Your task to perform on an android device: manage bookmarks in the chrome app Image 0: 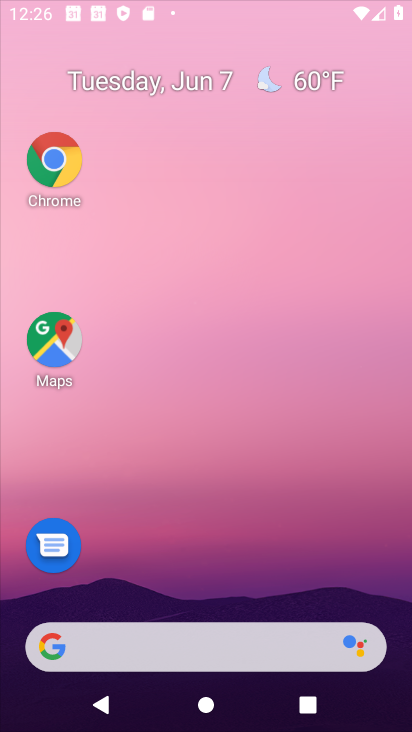
Step 0: click (283, 48)
Your task to perform on an android device: manage bookmarks in the chrome app Image 1: 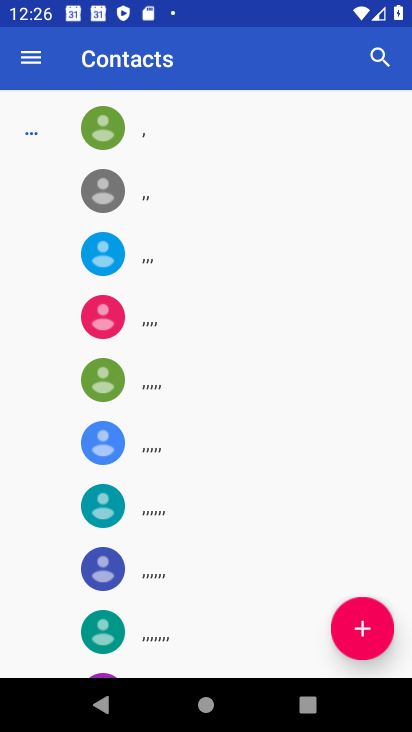
Step 1: click (249, 83)
Your task to perform on an android device: manage bookmarks in the chrome app Image 2: 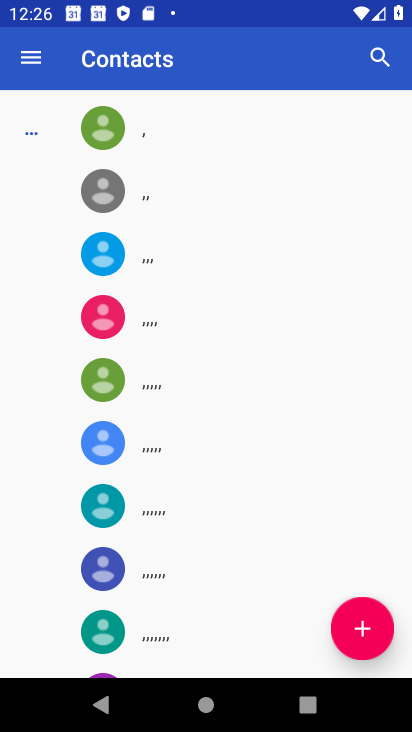
Step 2: press home button
Your task to perform on an android device: manage bookmarks in the chrome app Image 3: 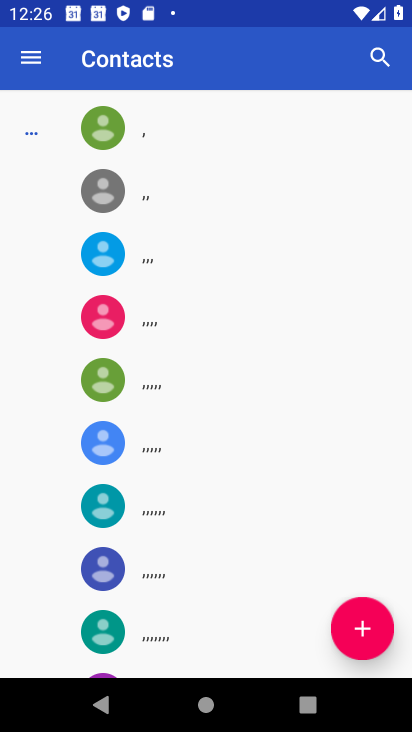
Step 3: press home button
Your task to perform on an android device: manage bookmarks in the chrome app Image 4: 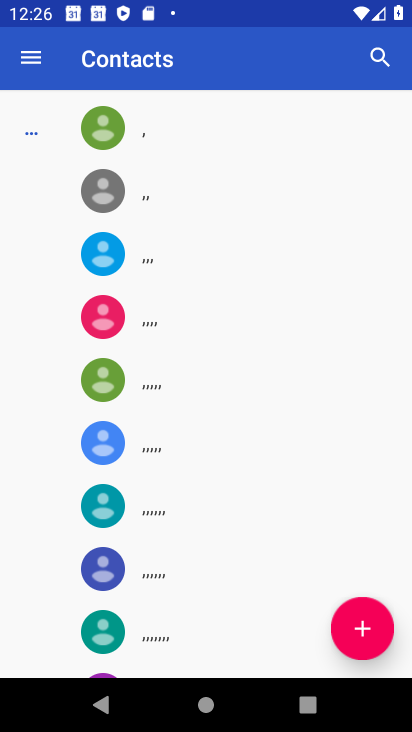
Step 4: drag from (211, 206) to (250, 42)
Your task to perform on an android device: manage bookmarks in the chrome app Image 5: 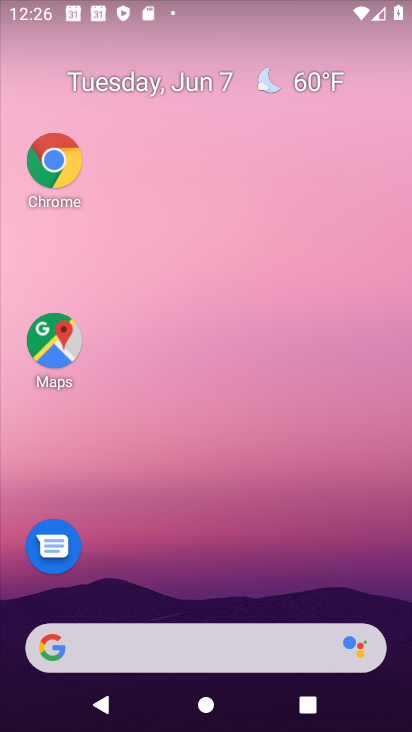
Step 5: drag from (181, 610) to (286, 36)
Your task to perform on an android device: manage bookmarks in the chrome app Image 6: 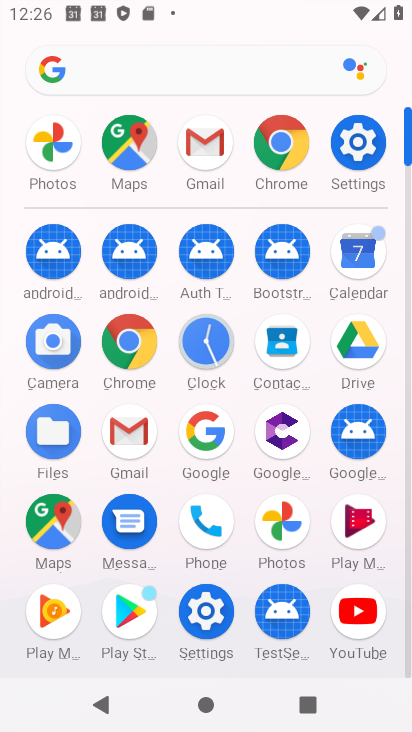
Step 6: click (125, 331)
Your task to perform on an android device: manage bookmarks in the chrome app Image 7: 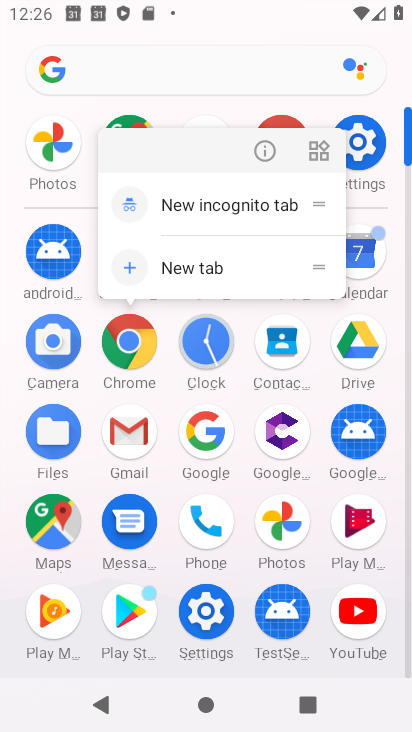
Step 7: click (267, 157)
Your task to perform on an android device: manage bookmarks in the chrome app Image 8: 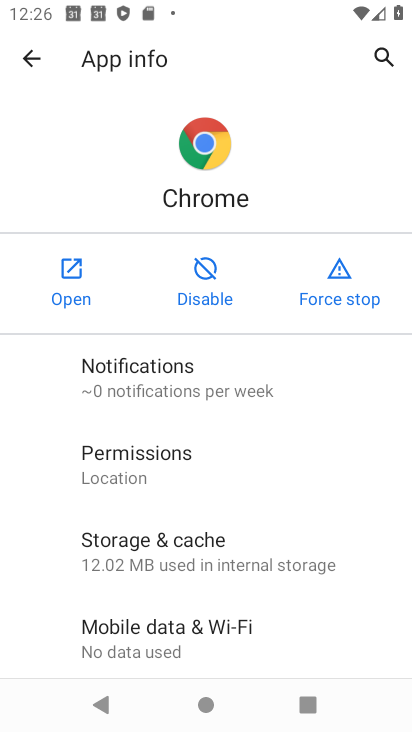
Step 8: click (76, 283)
Your task to perform on an android device: manage bookmarks in the chrome app Image 9: 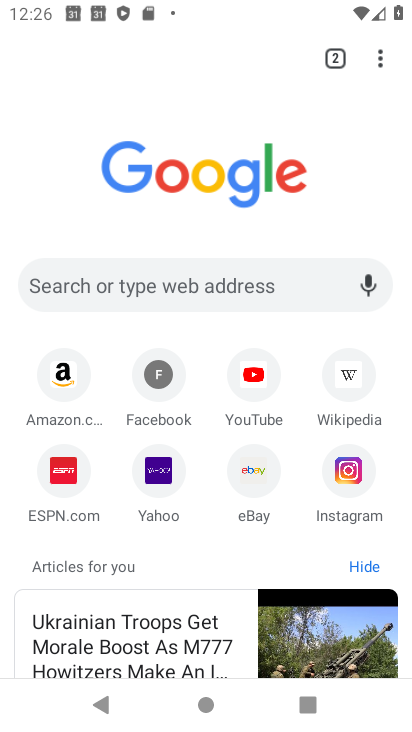
Step 9: drag from (392, 59) to (225, 224)
Your task to perform on an android device: manage bookmarks in the chrome app Image 10: 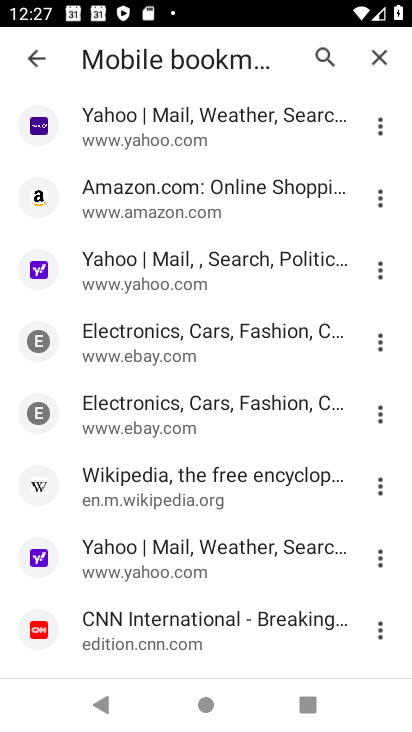
Step 10: drag from (190, 467) to (261, 169)
Your task to perform on an android device: manage bookmarks in the chrome app Image 11: 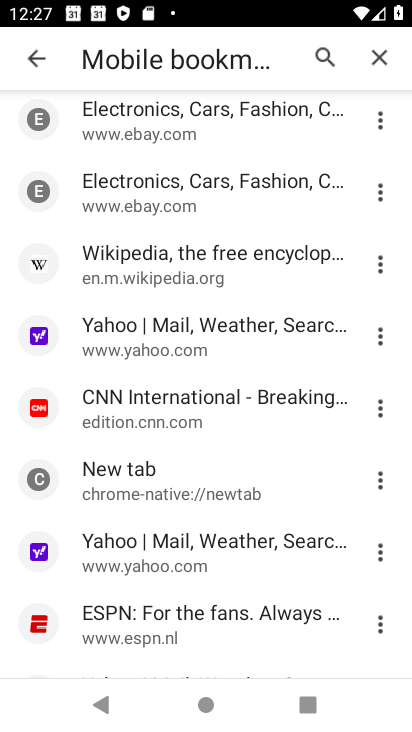
Step 11: drag from (257, 187) to (264, 489)
Your task to perform on an android device: manage bookmarks in the chrome app Image 12: 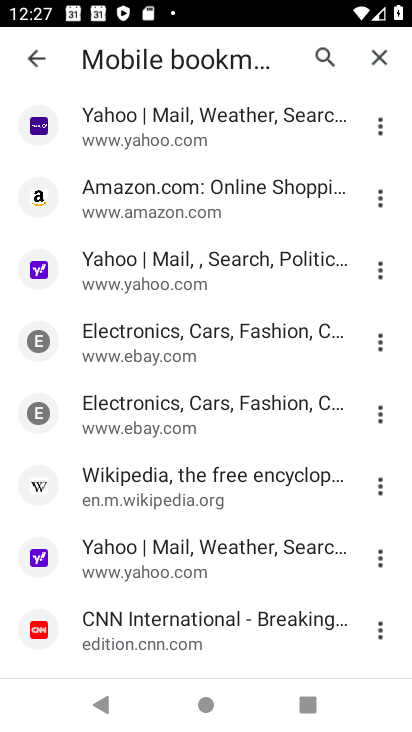
Step 12: click (386, 248)
Your task to perform on an android device: manage bookmarks in the chrome app Image 13: 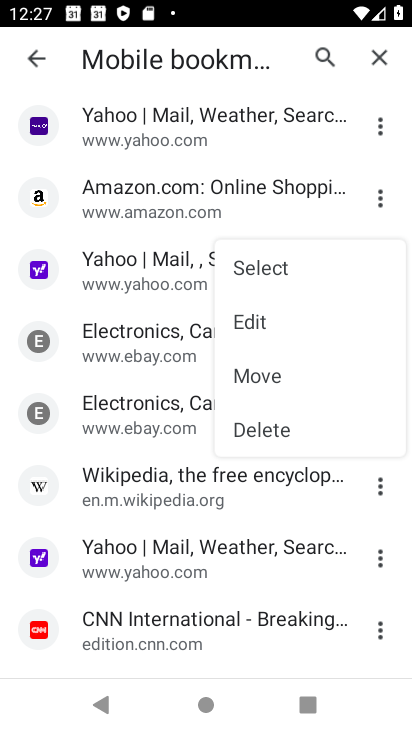
Step 13: click (270, 432)
Your task to perform on an android device: manage bookmarks in the chrome app Image 14: 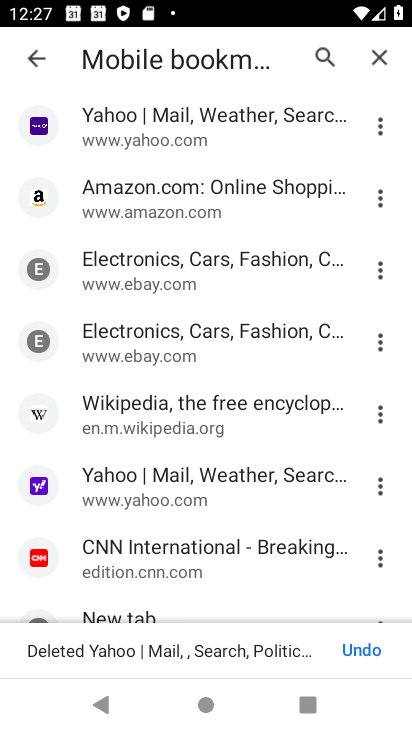
Step 14: task complete